Your task to perform on an android device: toggle notifications settings in the gmail app Image 0: 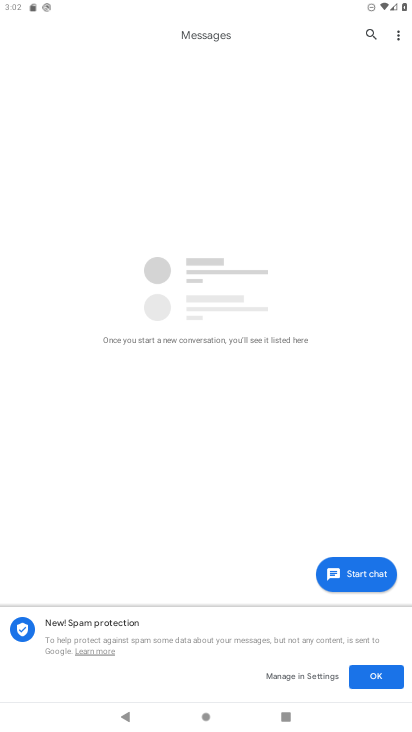
Step 0: press home button
Your task to perform on an android device: toggle notifications settings in the gmail app Image 1: 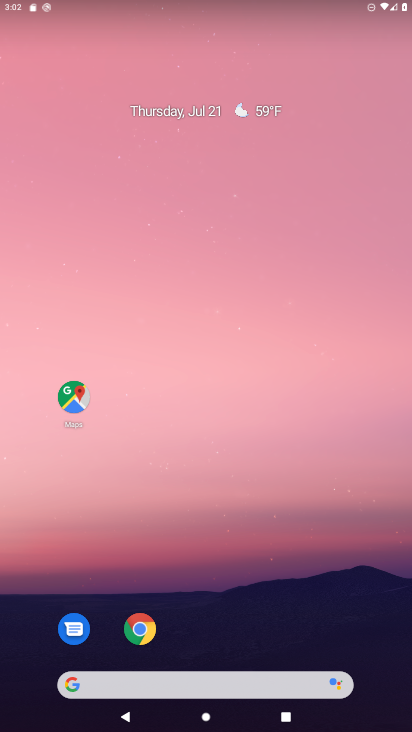
Step 1: drag from (228, 725) to (228, 115)
Your task to perform on an android device: toggle notifications settings in the gmail app Image 2: 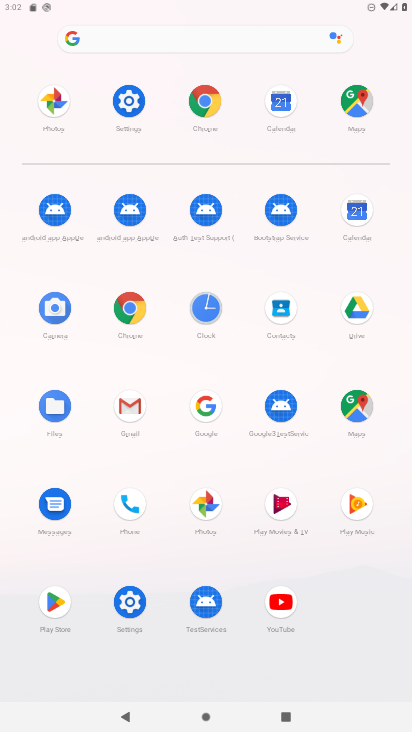
Step 2: click (132, 404)
Your task to perform on an android device: toggle notifications settings in the gmail app Image 3: 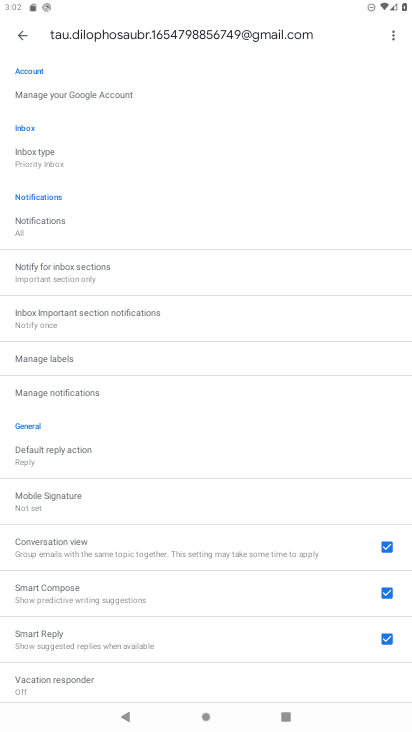
Step 3: click (29, 228)
Your task to perform on an android device: toggle notifications settings in the gmail app Image 4: 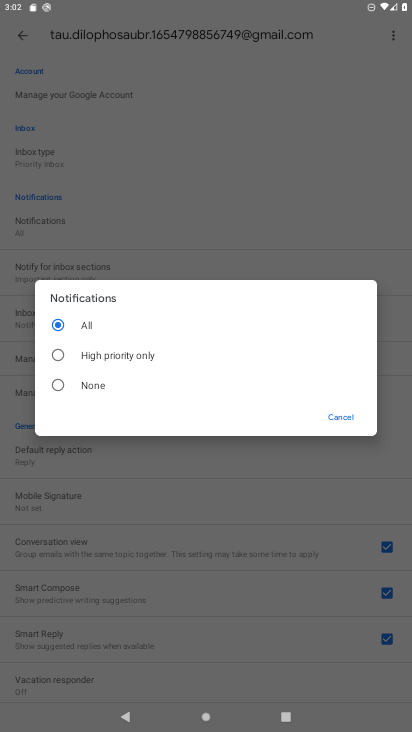
Step 4: click (58, 388)
Your task to perform on an android device: toggle notifications settings in the gmail app Image 5: 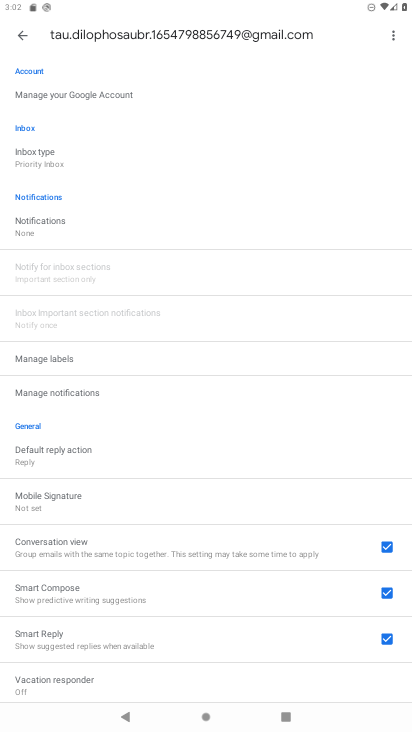
Step 5: task complete